Your task to perform on an android device: Search for usb-c on ebay.com, select the first entry, and add it to the cart. Image 0: 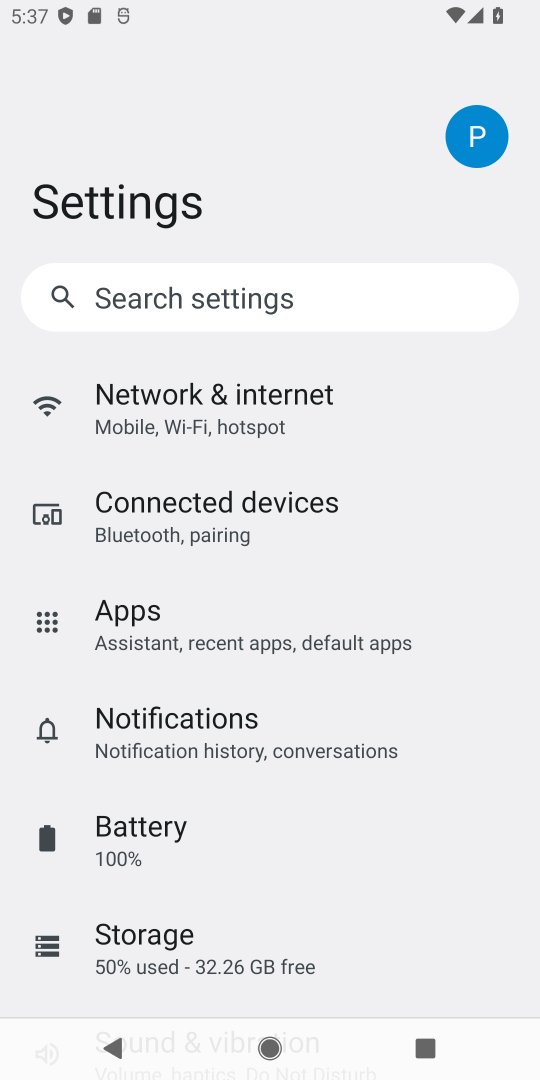
Step 0: press home button
Your task to perform on an android device: Search for usb-c on ebay.com, select the first entry, and add it to the cart. Image 1: 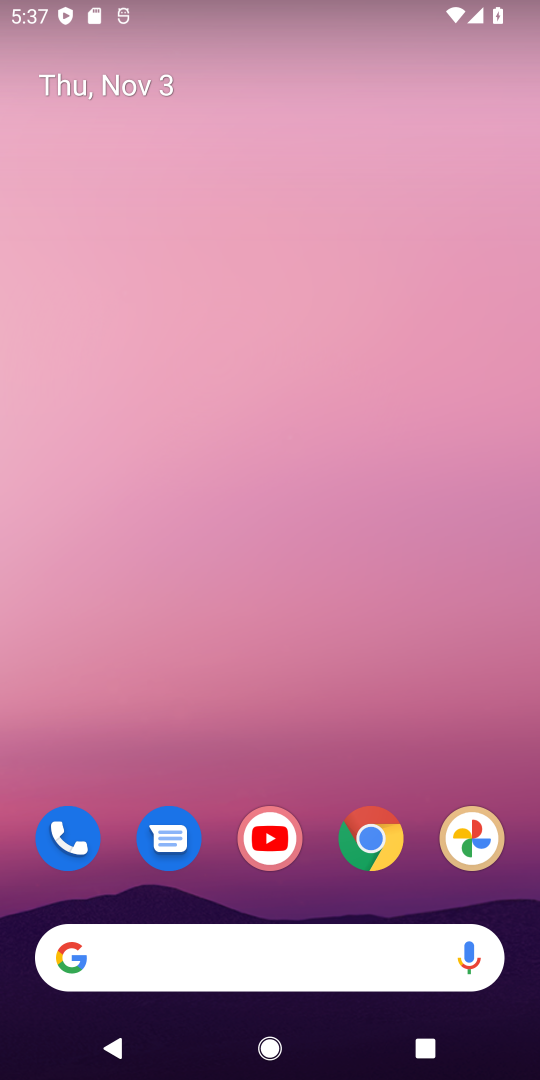
Step 1: click (376, 831)
Your task to perform on an android device: Search for usb-c on ebay.com, select the first entry, and add it to the cart. Image 2: 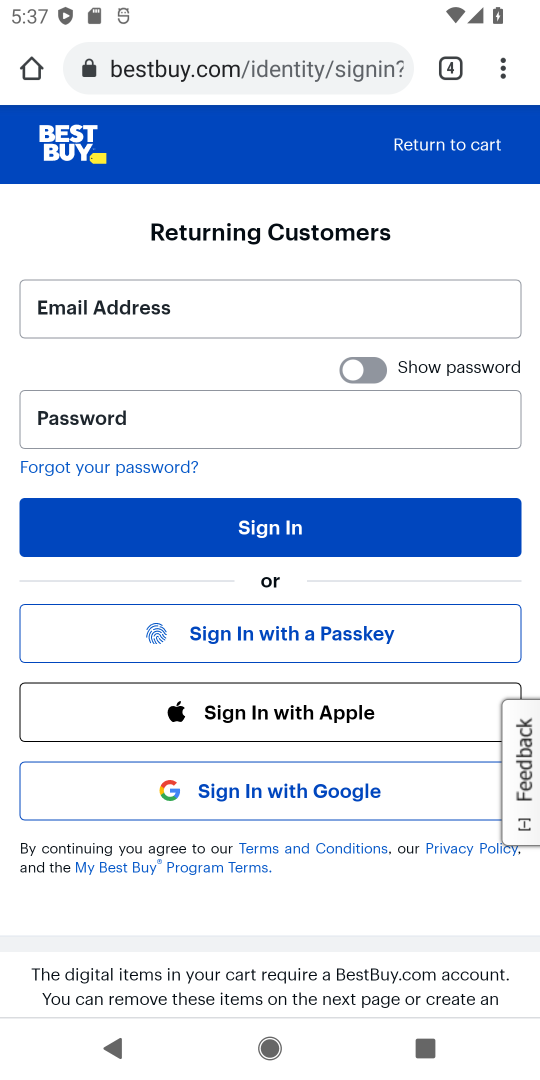
Step 2: click (446, 65)
Your task to perform on an android device: Search for usb-c on ebay.com, select the first entry, and add it to the cart. Image 3: 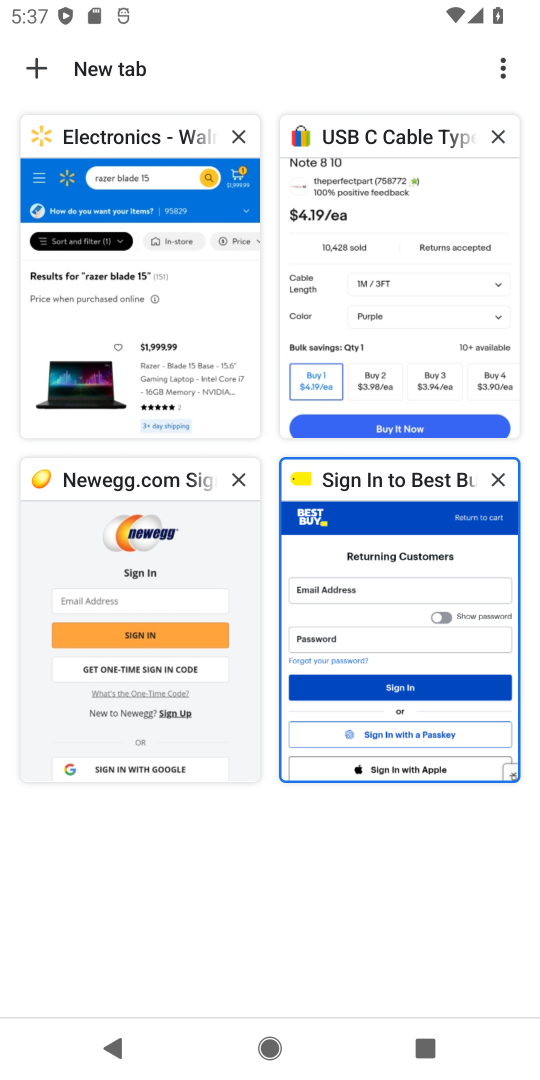
Step 3: click (423, 293)
Your task to perform on an android device: Search for usb-c on ebay.com, select the first entry, and add it to the cart. Image 4: 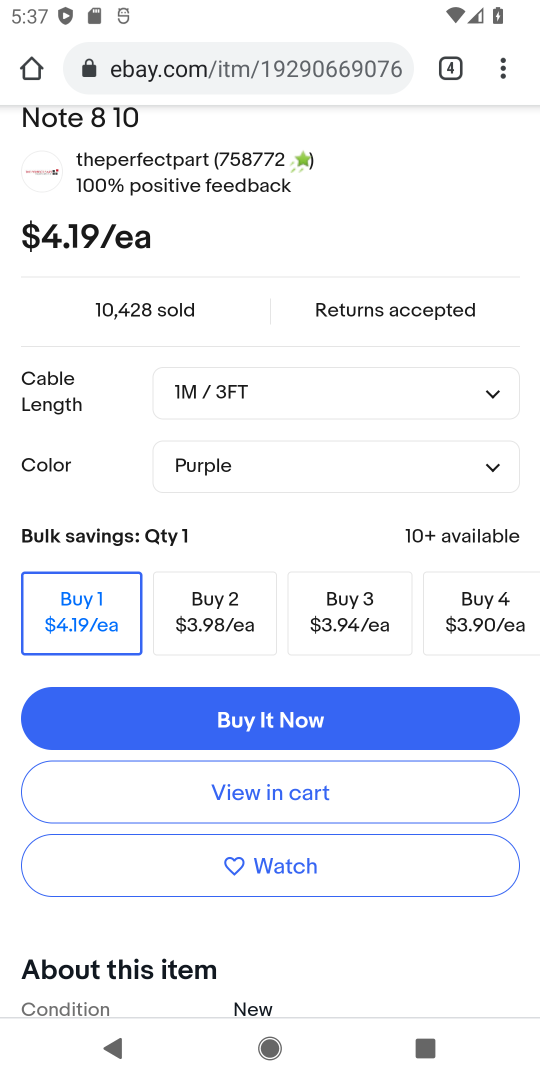
Step 4: drag from (424, 186) to (47, 1064)
Your task to perform on an android device: Search for usb-c on ebay.com, select the first entry, and add it to the cart. Image 5: 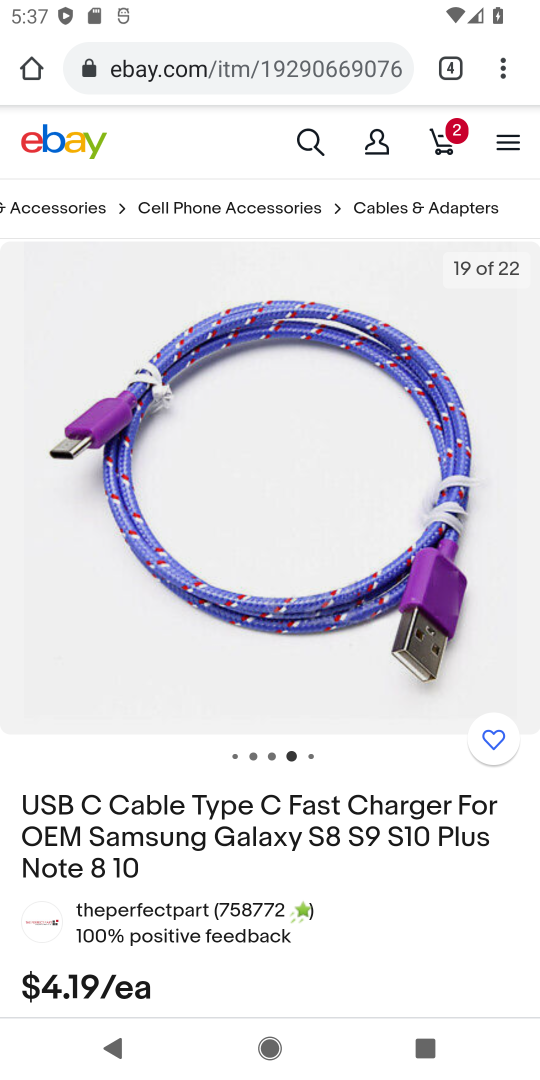
Step 5: click (310, 137)
Your task to perform on an android device: Search for usb-c on ebay.com, select the first entry, and add it to the cart. Image 6: 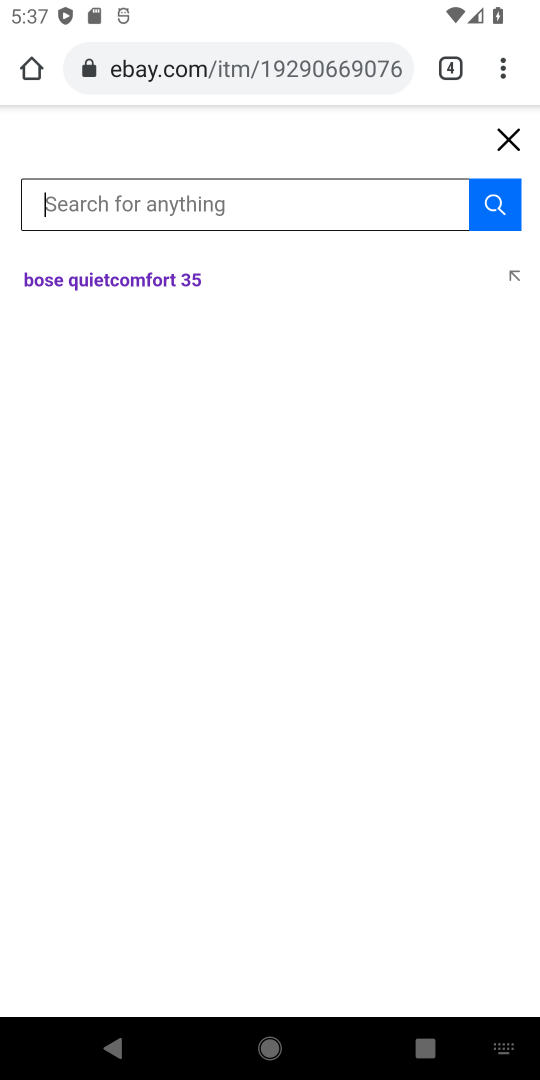
Step 6: type "usb-c"
Your task to perform on an android device: Search for usb-c on ebay.com, select the first entry, and add it to the cart. Image 7: 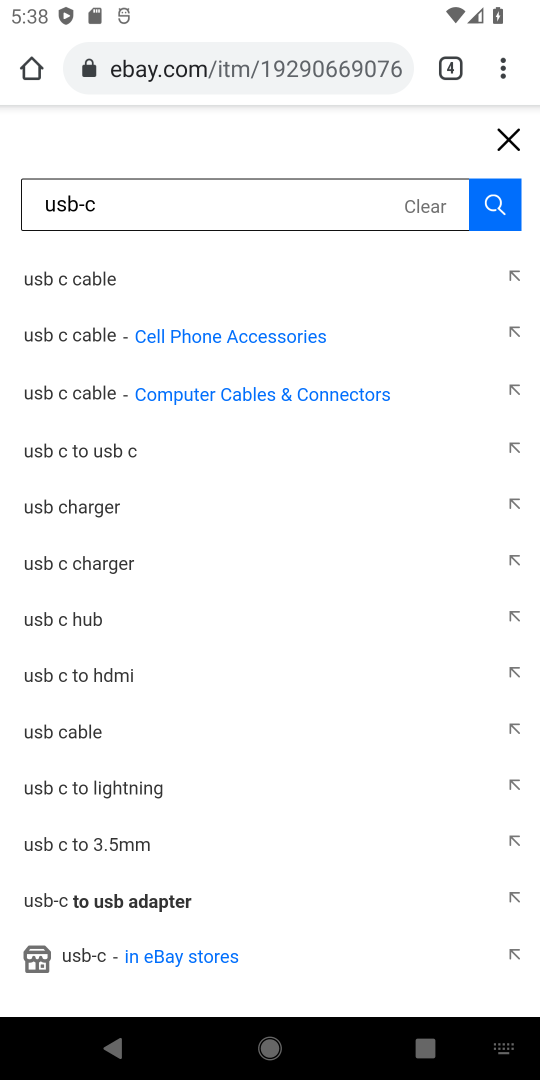
Step 7: click (64, 325)
Your task to perform on an android device: Search for usb-c on ebay.com, select the first entry, and add it to the cart. Image 8: 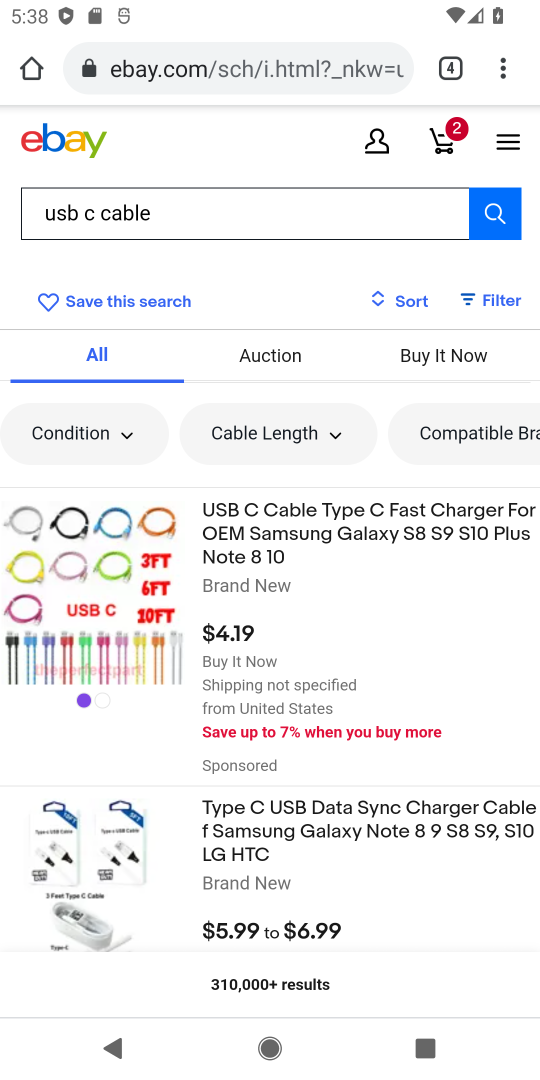
Step 8: click (389, 827)
Your task to perform on an android device: Search for usb-c on ebay.com, select the first entry, and add it to the cart. Image 9: 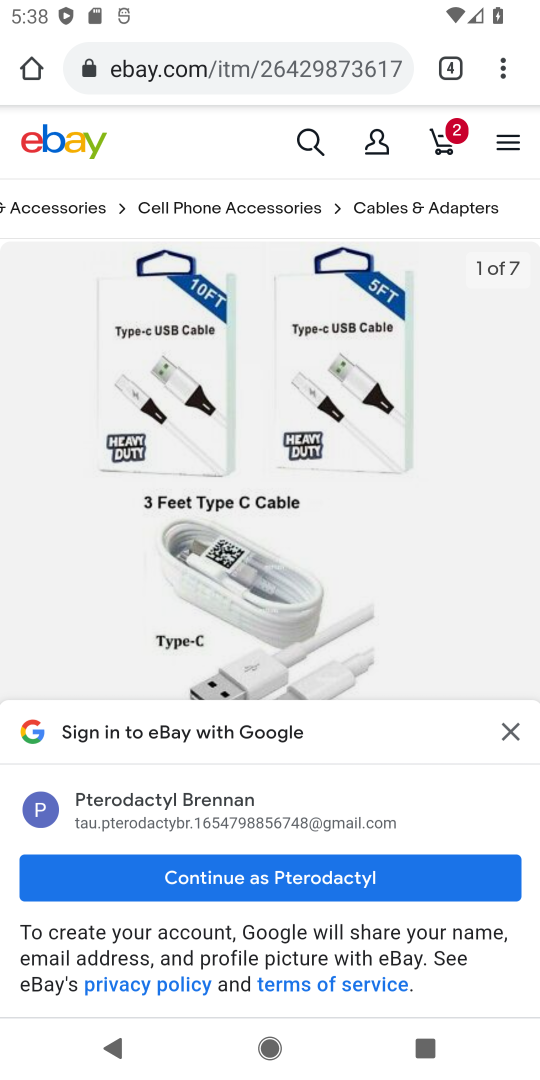
Step 9: click (355, 877)
Your task to perform on an android device: Search for usb-c on ebay.com, select the first entry, and add it to the cart. Image 10: 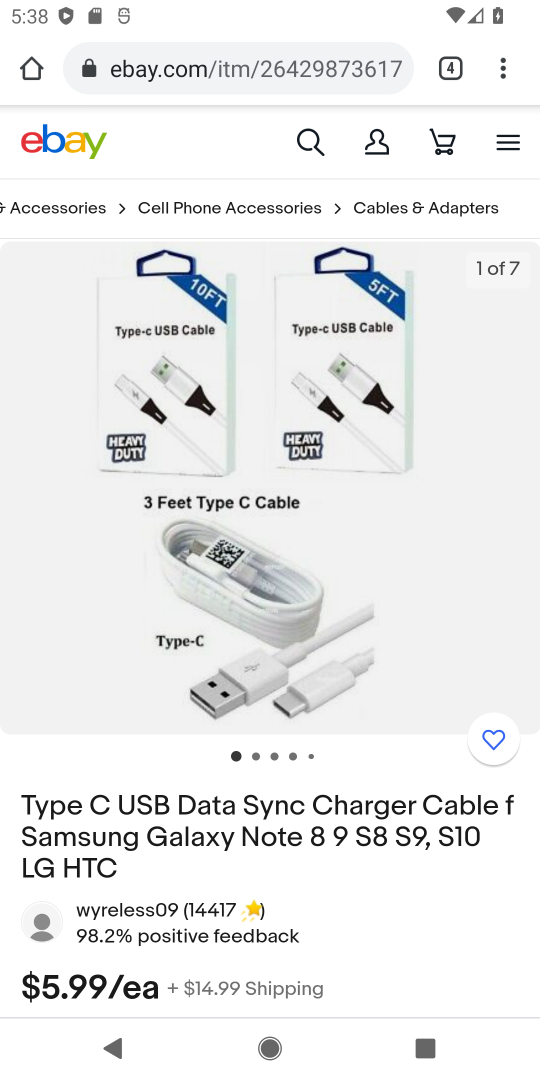
Step 10: drag from (337, 945) to (329, 91)
Your task to perform on an android device: Search for usb-c on ebay.com, select the first entry, and add it to the cart. Image 11: 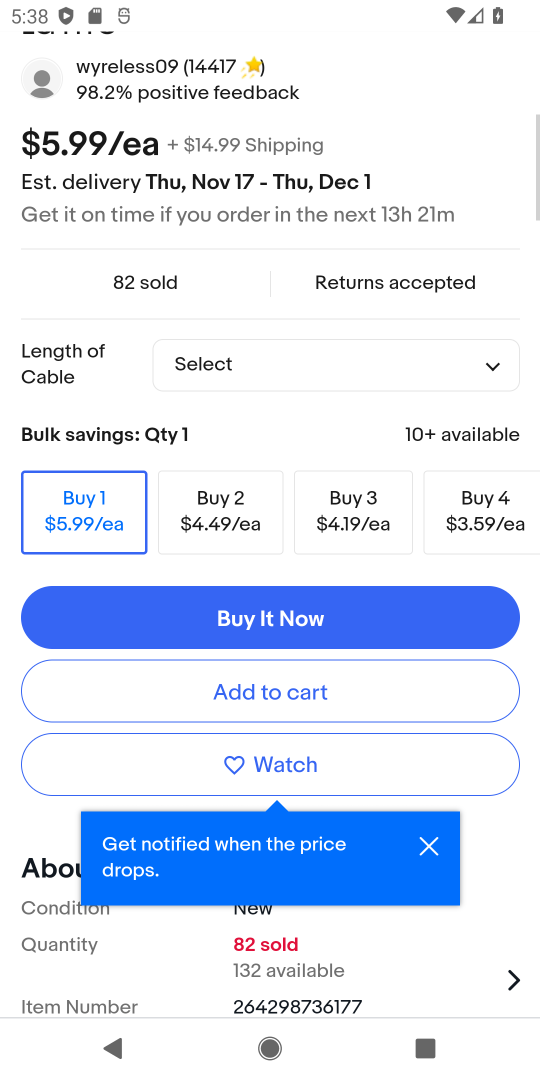
Step 11: click (359, 613)
Your task to perform on an android device: Search for usb-c on ebay.com, select the first entry, and add it to the cart. Image 12: 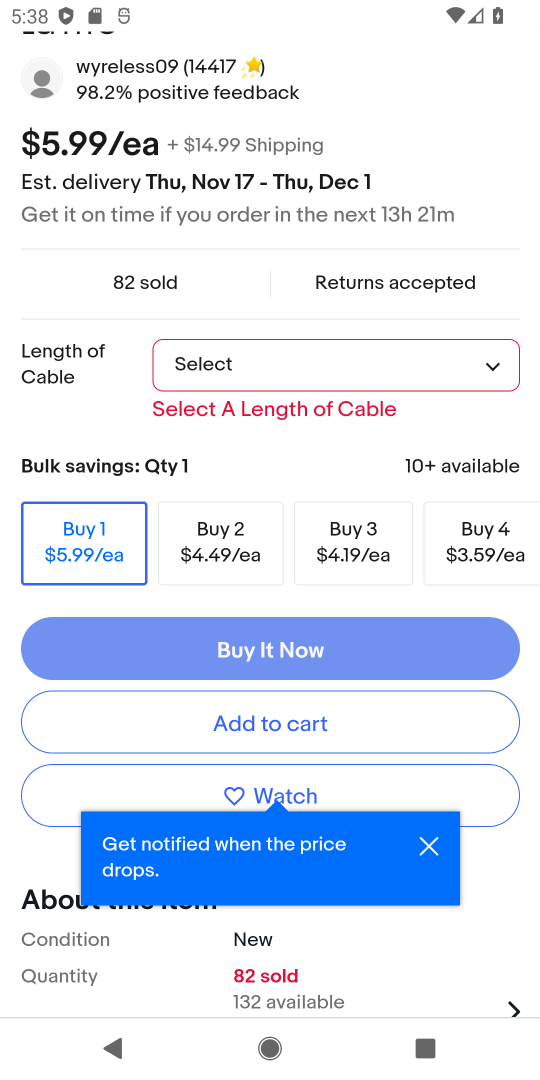
Step 12: click (495, 365)
Your task to perform on an android device: Search for usb-c on ebay.com, select the first entry, and add it to the cart. Image 13: 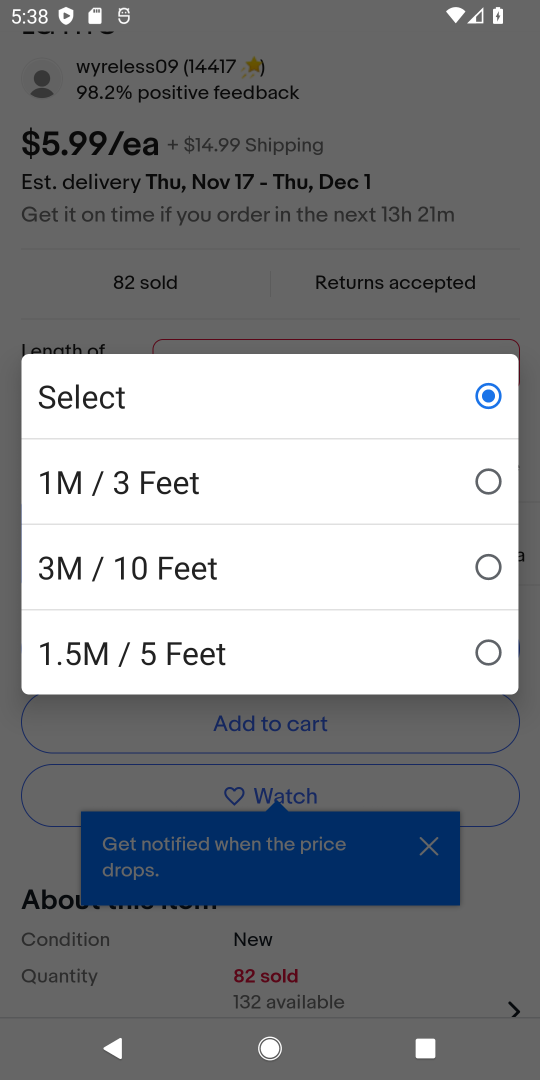
Step 13: click (487, 470)
Your task to perform on an android device: Search for usb-c on ebay.com, select the first entry, and add it to the cart. Image 14: 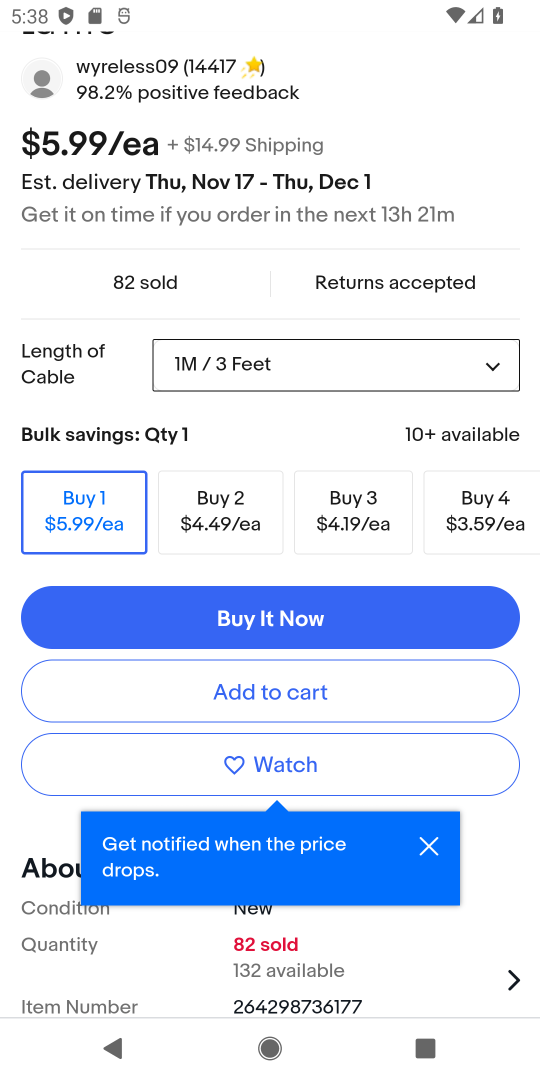
Step 14: click (432, 854)
Your task to perform on an android device: Search for usb-c on ebay.com, select the first entry, and add it to the cart. Image 15: 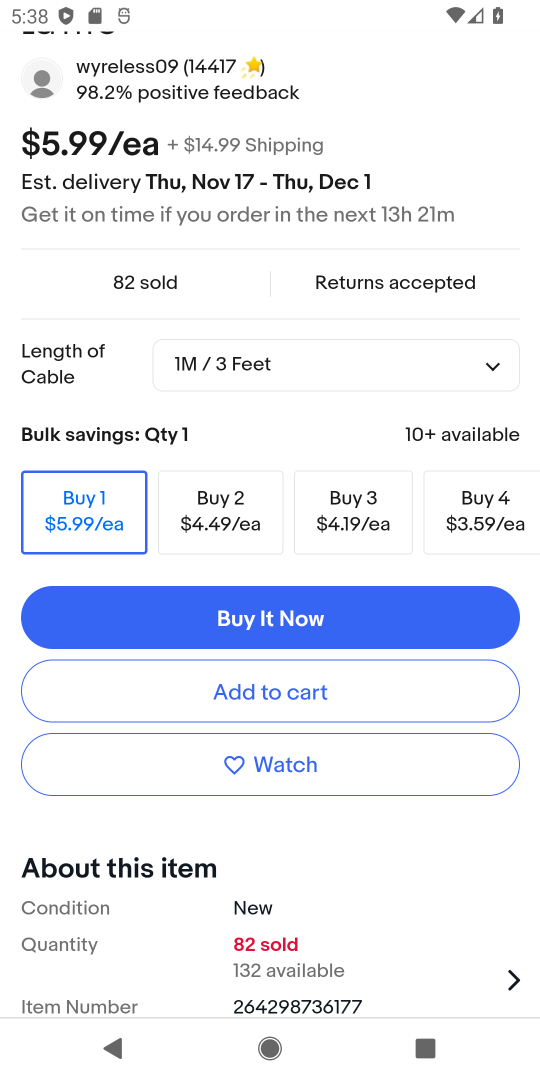
Step 15: click (339, 692)
Your task to perform on an android device: Search for usb-c on ebay.com, select the first entry, and add it to the cart. Image 16: 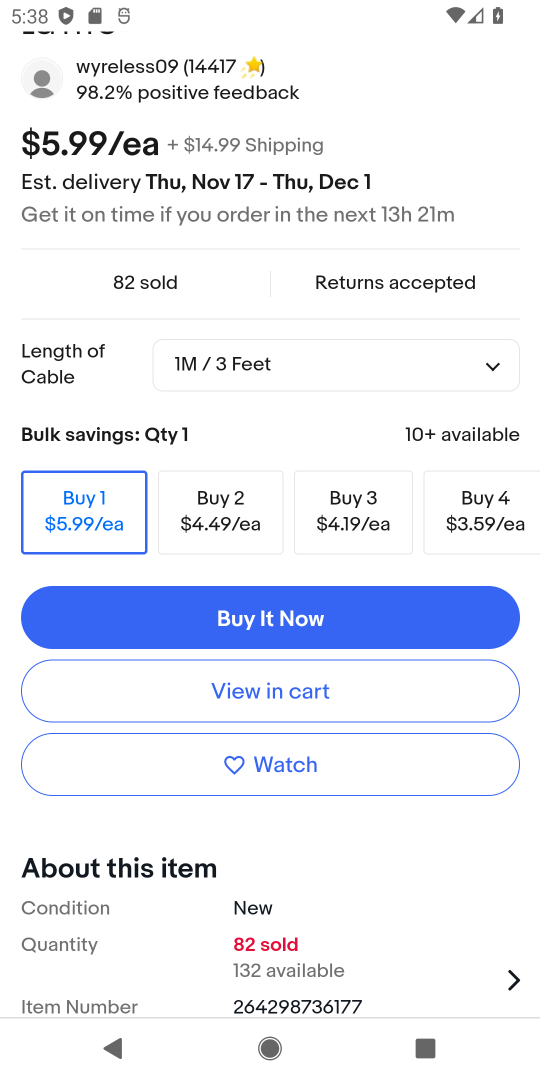
Step 16: task complete